Your task to perform on an android device: change alarm snooze length Image 0: 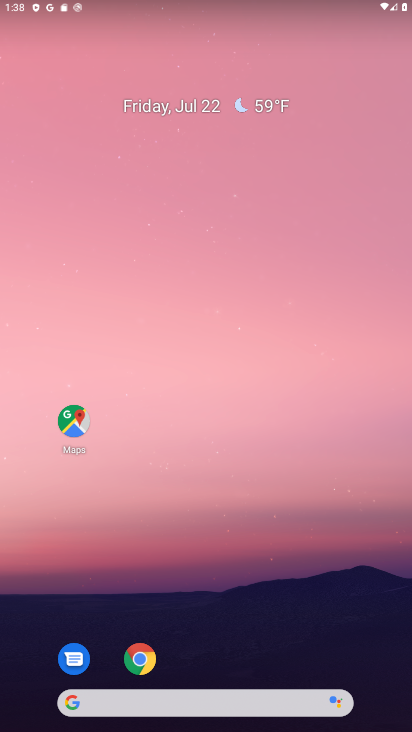
Step 0: drag from (260, 634) to (345, 7)
Your task to perform on an android device: change alarm snooze length Image 1: 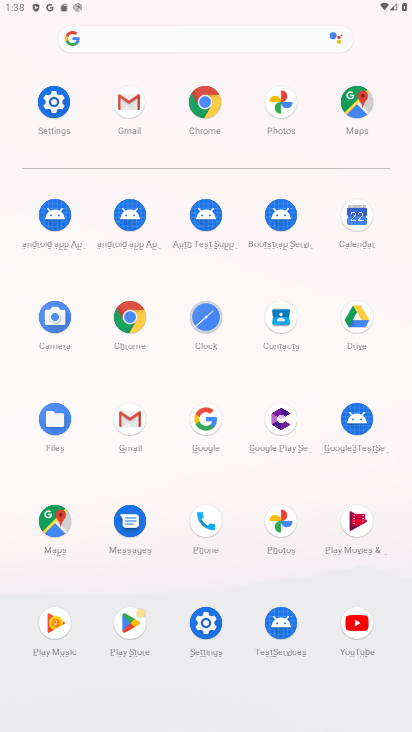
Step 1: click (205, 315)
Your task to perform on an android device: change alarm snooze length Image 2: 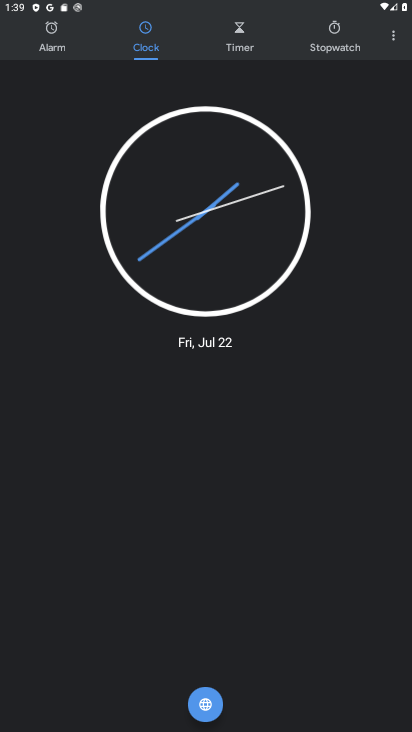
Step 2: click (401, 41)
Your task to perform on an android device: change alarm snooze length Image 3: 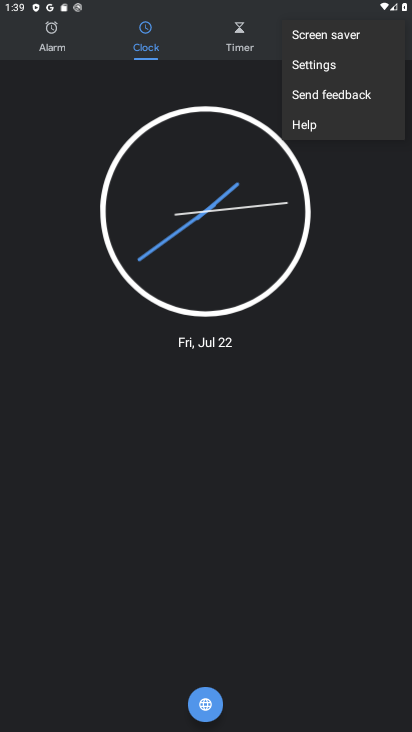
Step 3: click (339, 64)
Your task to perform on an android device: change alarm snooze length Image 4: 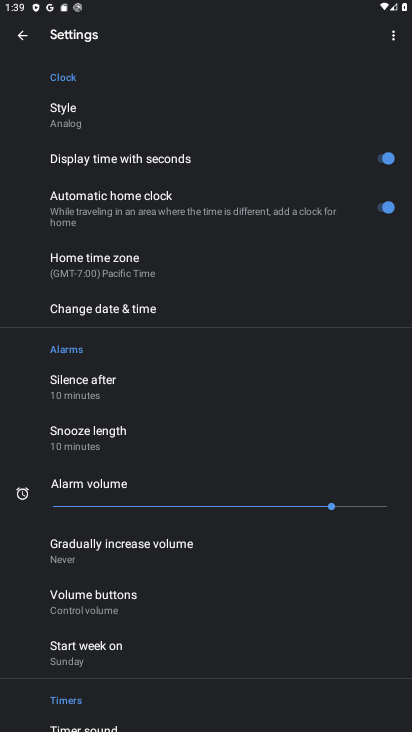
Step 4: drag from (185, 602) to (62, 179)
Your task to perform on an android device: change alarm snooze length Image 5: 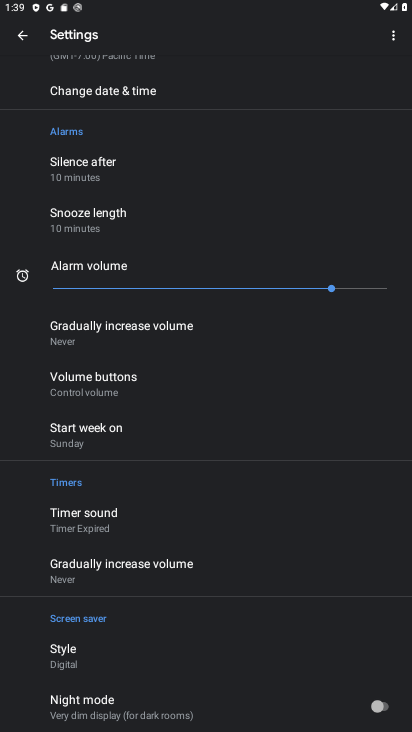
Step 5: click (72, 229)
Your task to perform on an android device: change alarm snooze length Image 6: 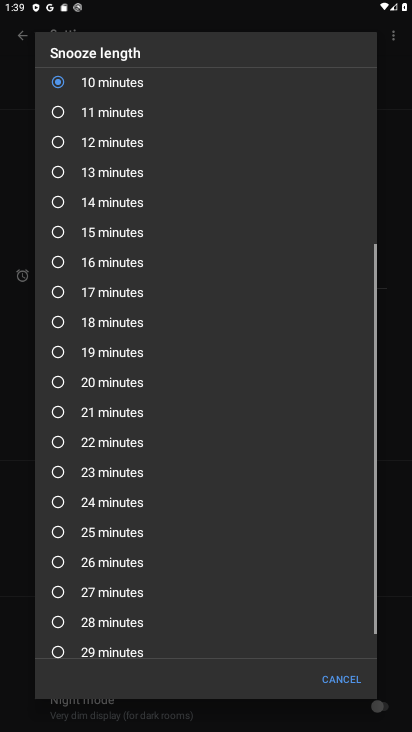
Step 6: click (142, 349)
Your task to perform on an android device: change alarm snooze length Image 7: 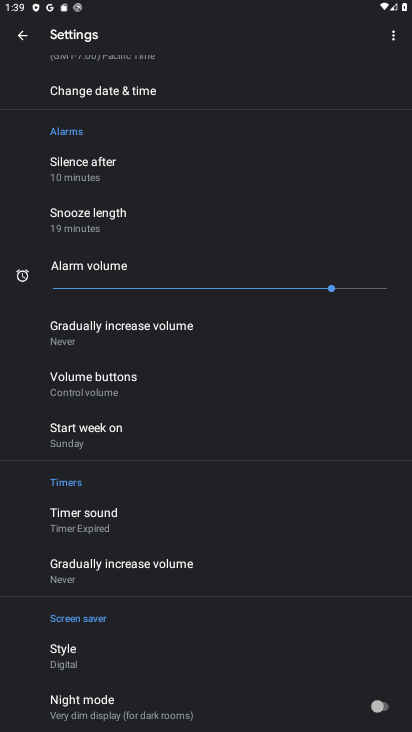
Step 7: task complete